Your task to perform on an android device: Open Google Chrome and open the bookmarks view Image 0: 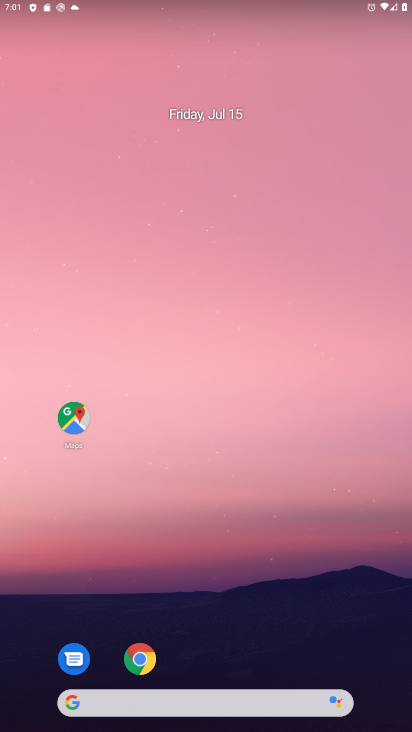
Step 0: click (136, 659)
Your task to perform on an android device: Open Google Chrome and open the bookmarks view Image 1: 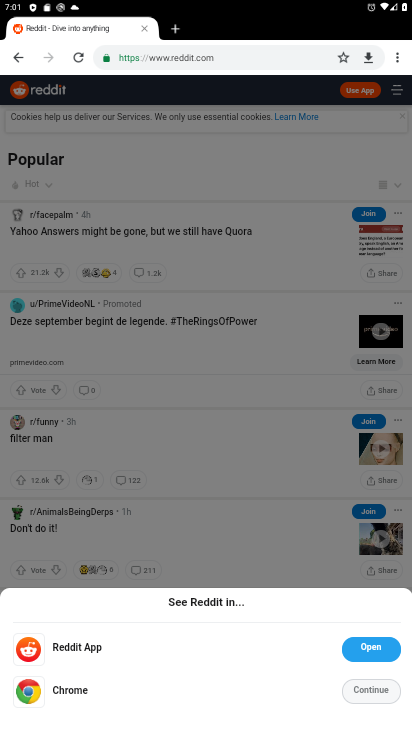
Step 1: click (397, 64)
Your task to perform on an android device: Open Google Chrome and open the bookmarks view Image 2: 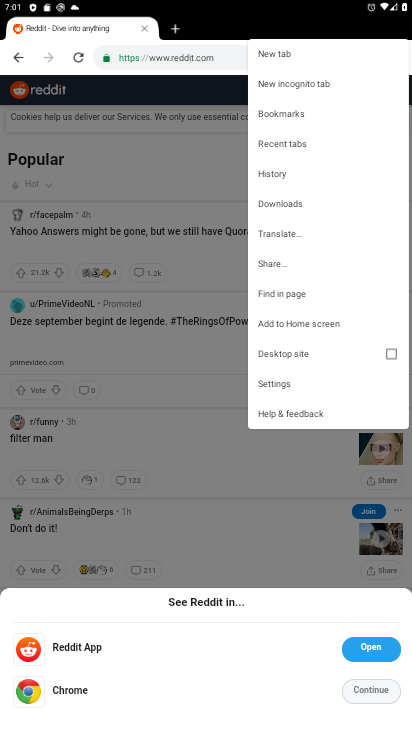
Step 2: click (280, 113)
Your task to perform on an android device: Open Google Chrome and open the bookmarks view Image 3: 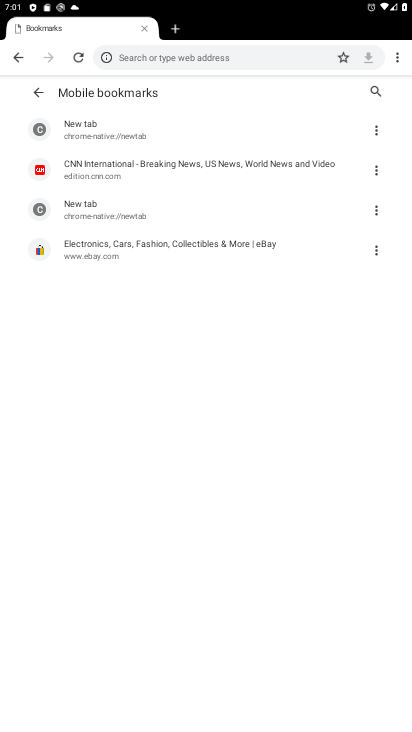
Step 3: task complete